Your task to perform on an android device: open a new tab in the chrome app Image 0: 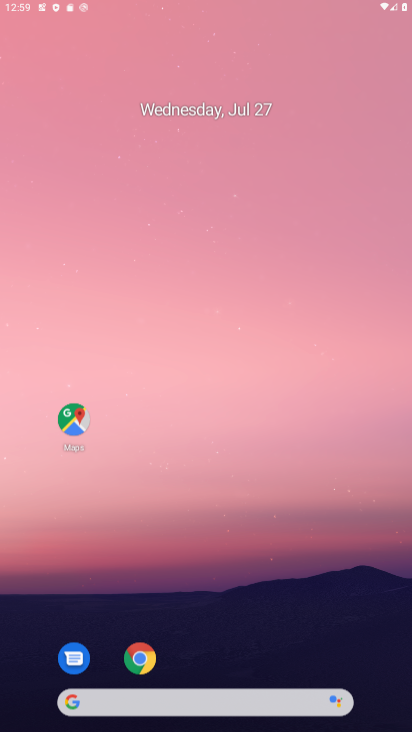
Step 0: press home button
Your task to perform on an android device: open a new tab in the chrome app Image 1: 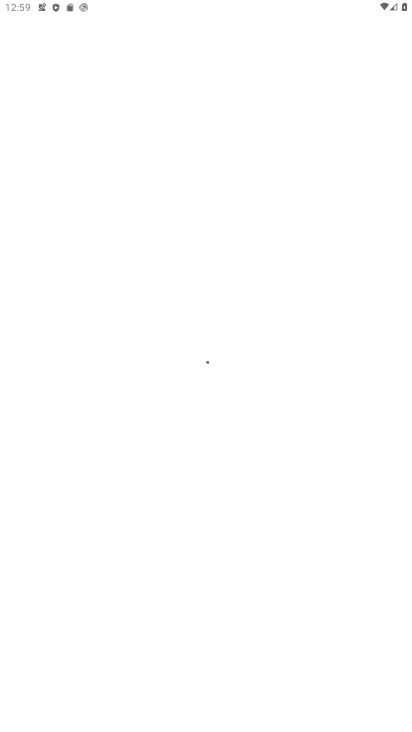
Step 1: press home button
Your task to perform on an android device: open a new tab in the chrome app Image 2: 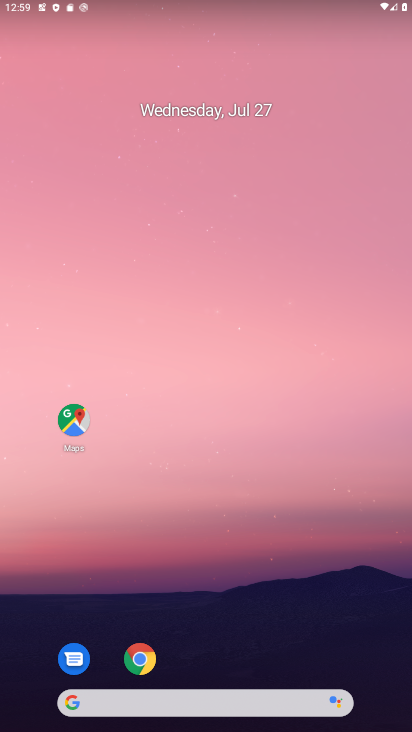
Step 2: drag from (291, 593) to (87, 74)
Your task to perform on an android device: open a new tab in the chrome app Image 3: 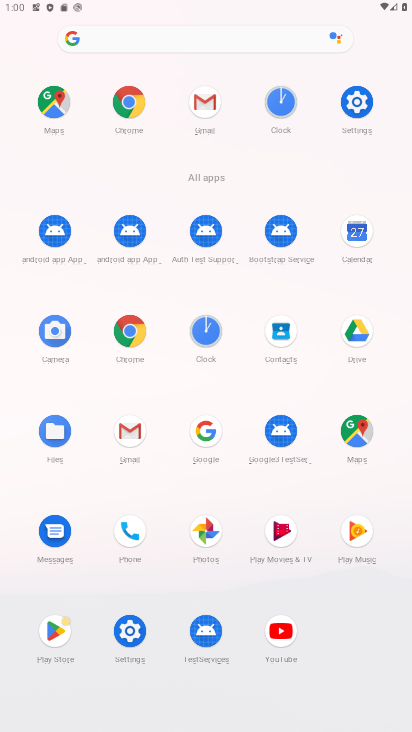
Step 3: click (125, 117)
Your task to perform on an android device: open a new tab in the chrome app Image 4: 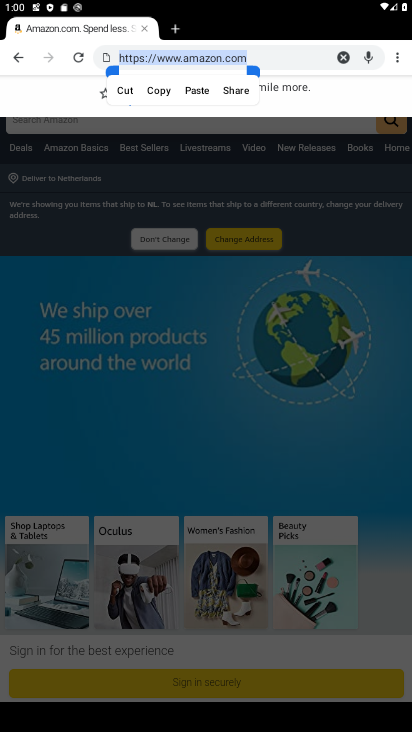
Step 4: click (232, 399)
Your task to perform on an android device: open a new tab in the chrome app Image 5: 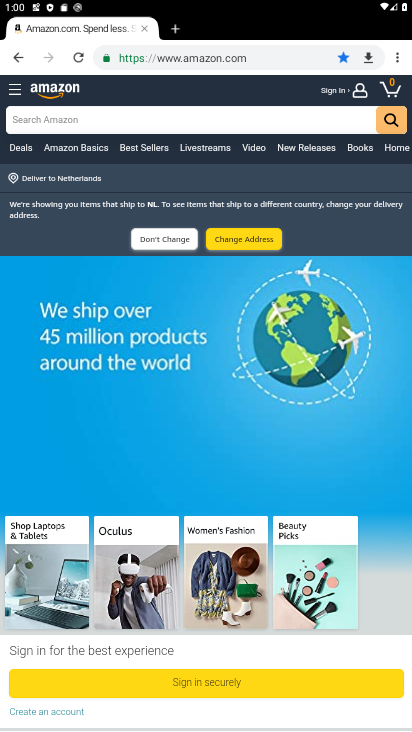
Step 5: task complete